Your task to perform on an android device: snooze an email in the gmail app Image 0: 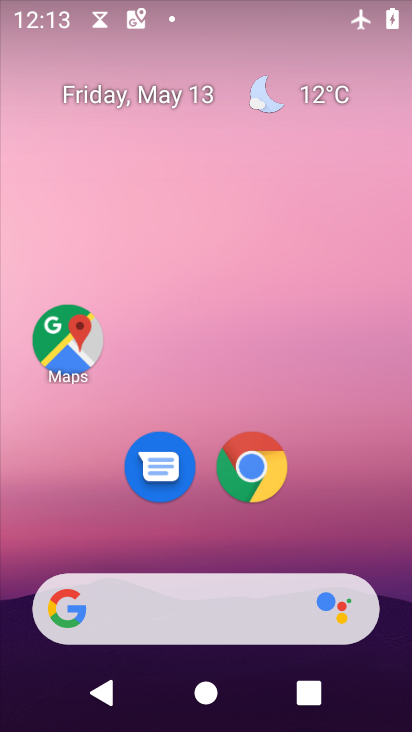
Step 0: drag from (321, 497) to (270, 91)
Your task to perform on an android device: snooze an email in the gmail app Image 1: 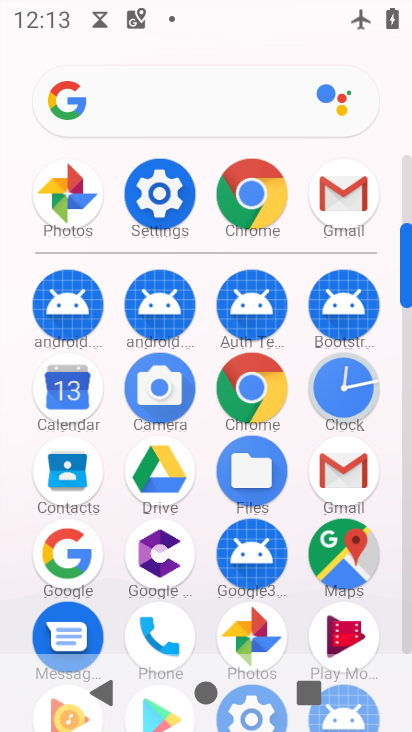
Step 1: click (352, 167)
Your task to perform on an android device: snooze an email in the gmail app Image 2: 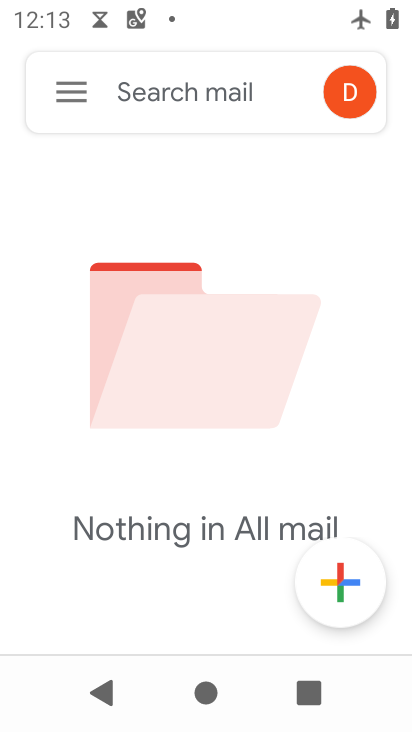
Step 2: click (67, 87)
Your task to perform on an android device: snooze an email in the gmail app Image 3: 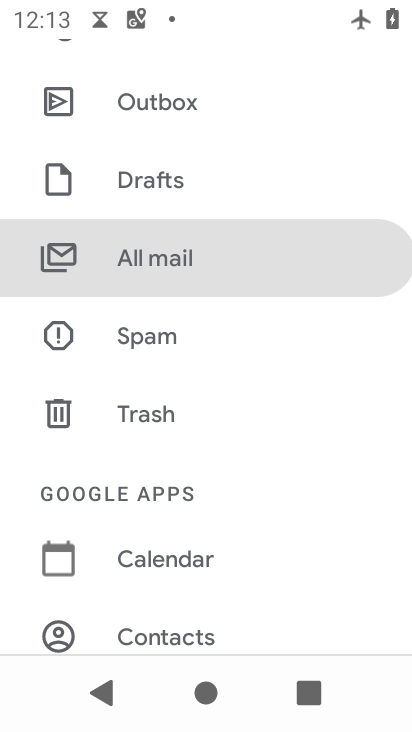
Step 3: task complete